Your task to perform on an android device: Add "razer blade" to the cart on amazon Image 0: 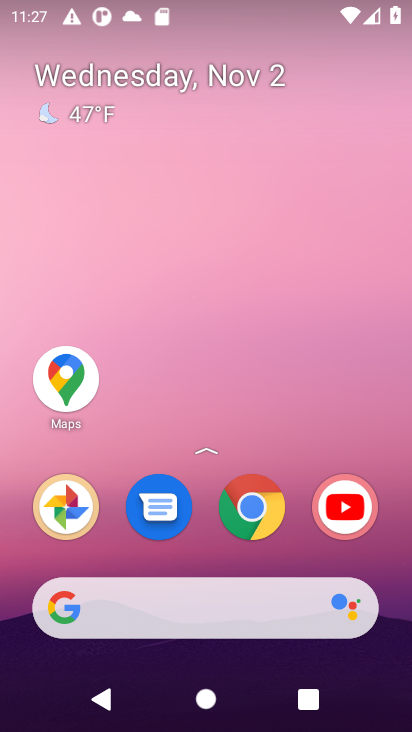
Step 0: click (153, 620)
Your task to perform on an android device: Add "razer blade" to the cart on amazon Image 1: 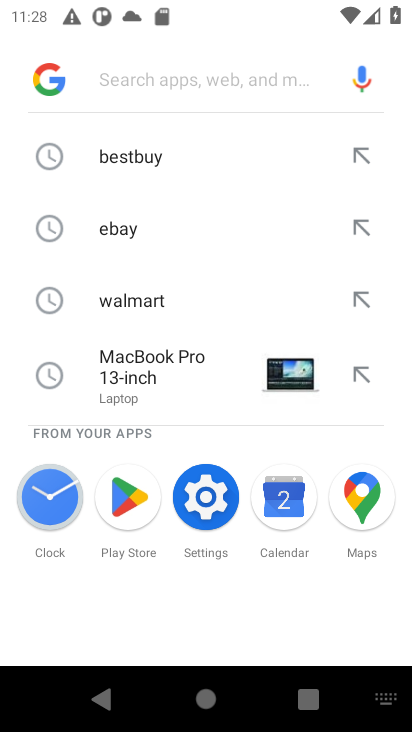
Step 1: type "amazon"
Your task to perform on an android device: Add "razer blade" to the cart on amazon Image 2: 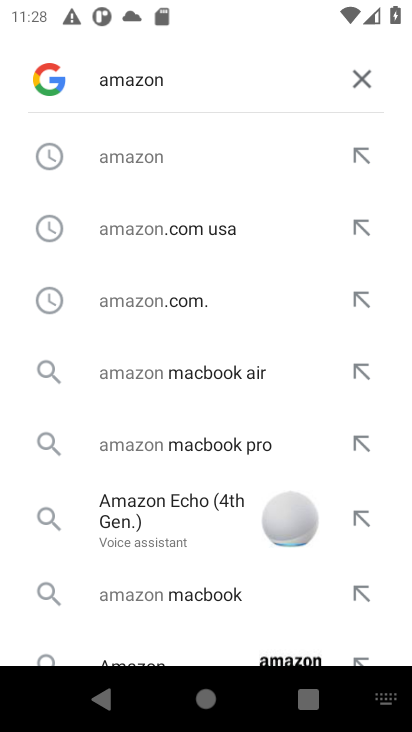
Step 2: click (139, 171)
Your task to perform on an android device: Add "razer blade" to the cart on amazon Image 3: 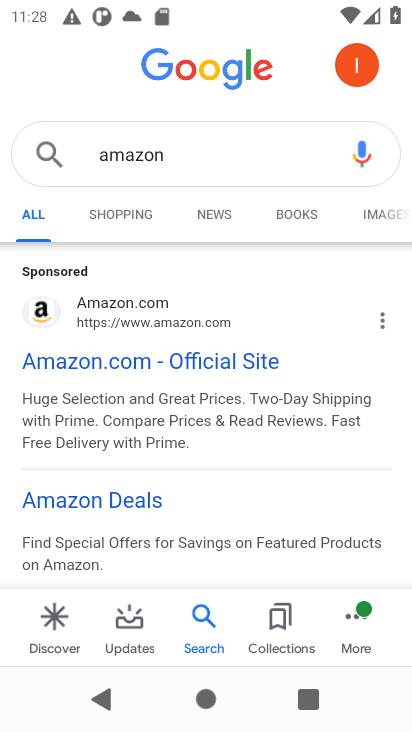
Step 3: click (112, 358)
Your task to perform on an android device: Add "razer blade" to the cart on amazon Image 4: 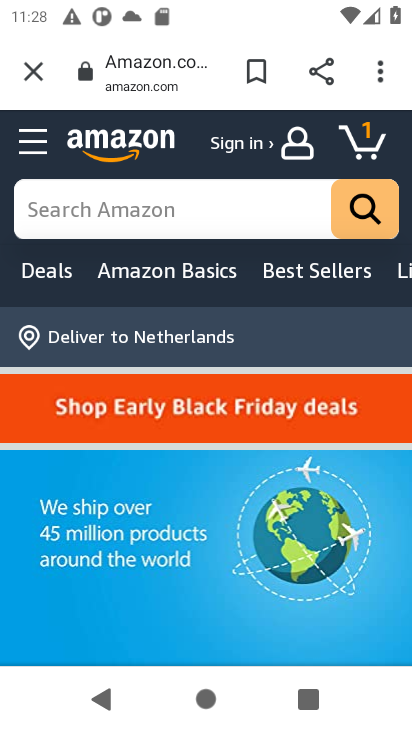
Step 4: click (104, 201)
Your task to perform on an android device: Add "razer blade" to the cart on amazon Image 5: 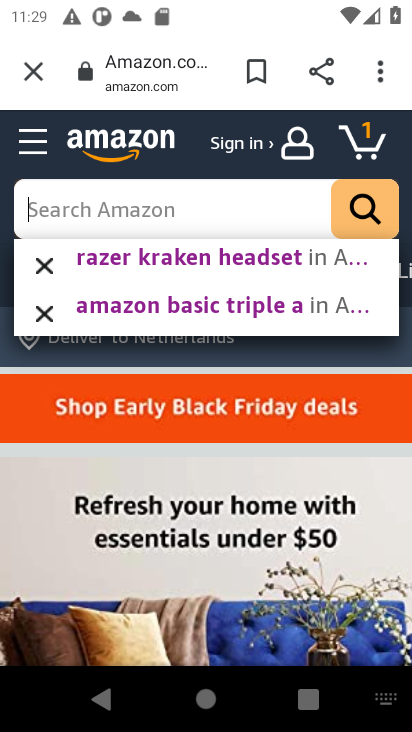
Step 5: click (189, 271)
Your task to perform on an android device: Add "razer blade" to the cart on amazon Image 6: 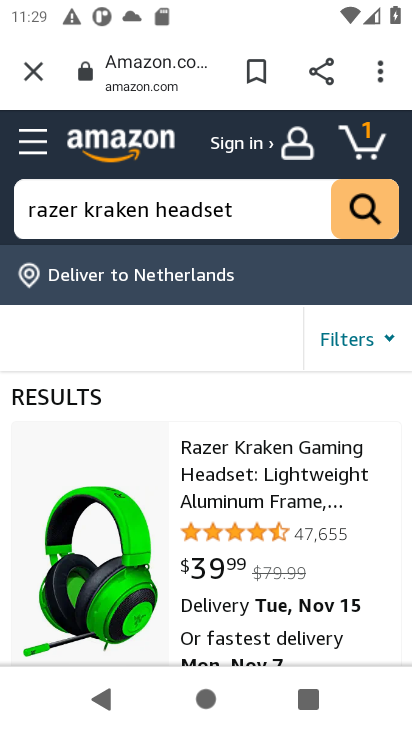
Step 6: task complete